Your task to perform on an android device: turn on data saver in the chrome app Image 0: 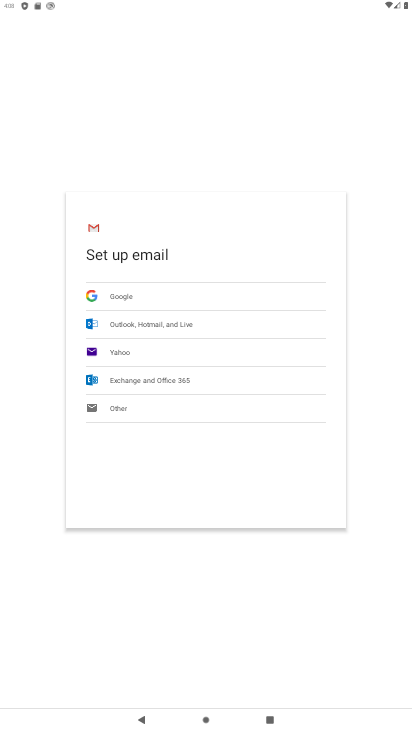
Step 0: press home button
Your task to perform on an android device: turn on data saver in the chrome app Image 1: 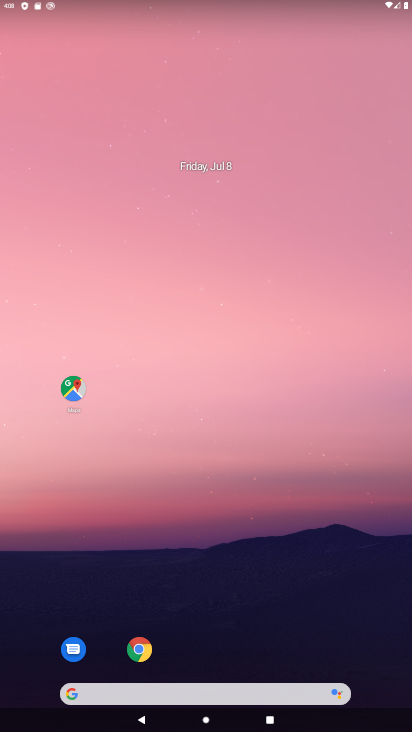
Step 1: drag from (219, 539) to (325, 140)
Your task to perform on an android device: turn on data saver in the chrome app Image 2: 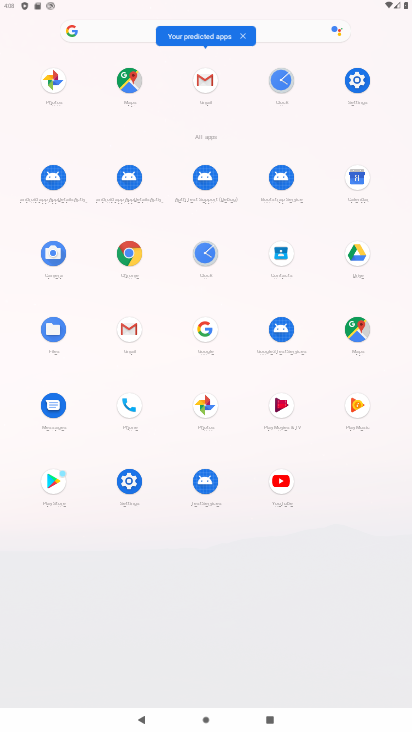
Step 2: click (139, 254)
Your task to perform on an android device: turn on data saver in the chrome app Image 3: 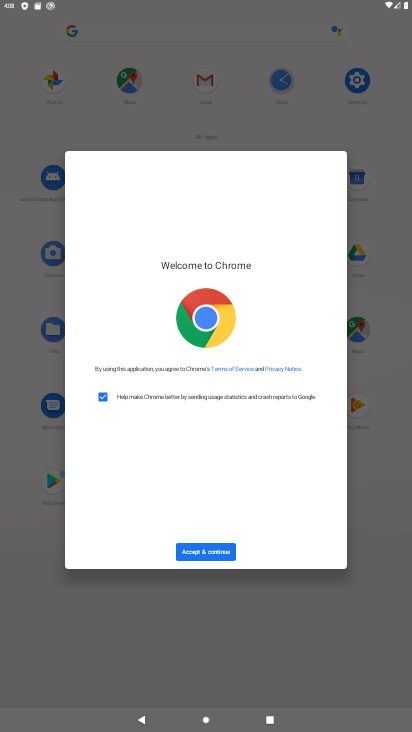
Step 3: click (225, 545)
Your task to perform on an android device: turn on data saver in the chrome app Image 4: 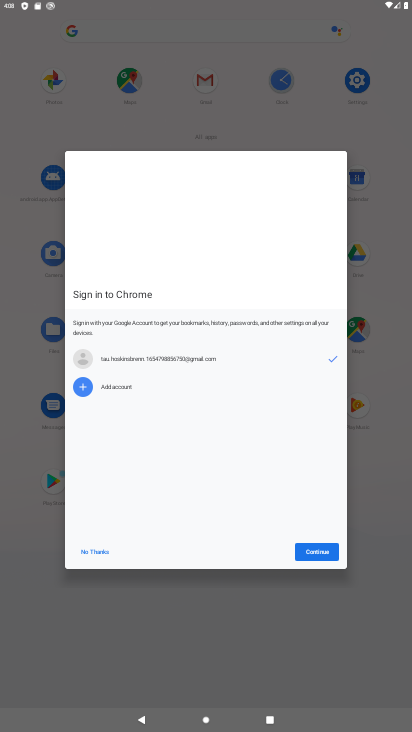
Step 4: click (319, 550)
Your task to perform on an android device: turn on data saver in the chrome app Image 5: 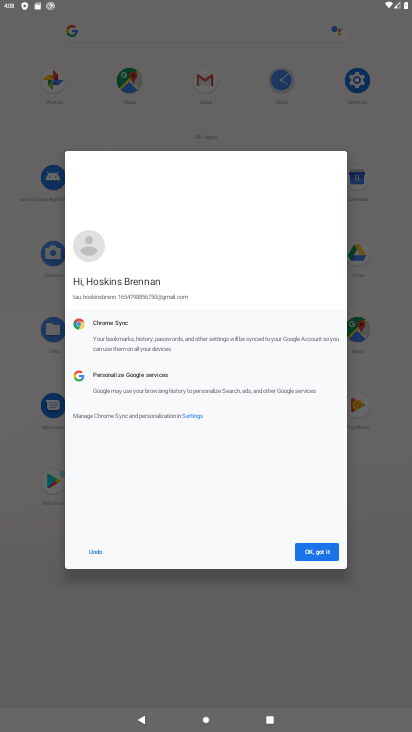
Step 5: click (324, 550)
Your task to perform on an android device: turn on data saver in the chrome app Image 6: 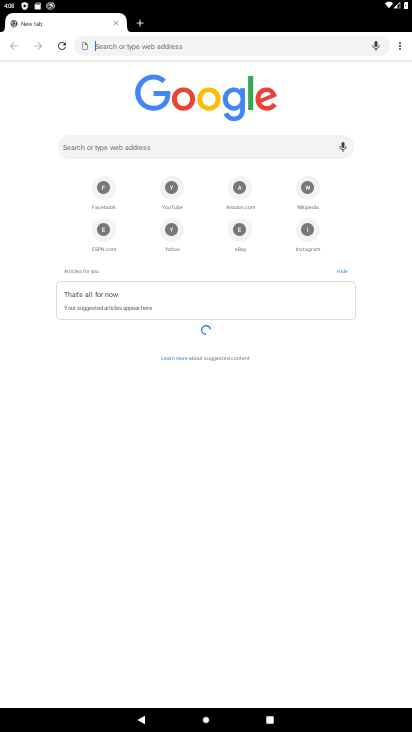
Step 6: drag from (394, 42) to (323, 203)
Your task to perform on an android device: turn on data saver in the chrome app Image 7: 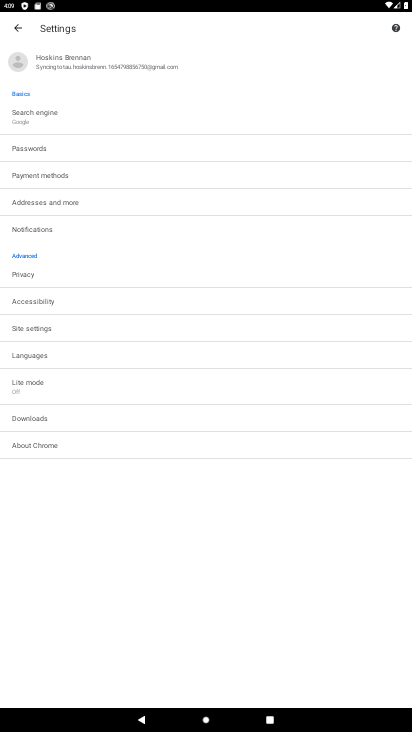
Step 7: click (65, 380)
Your task to perform on an android device: turn on data saver in the chrome app Image 8: 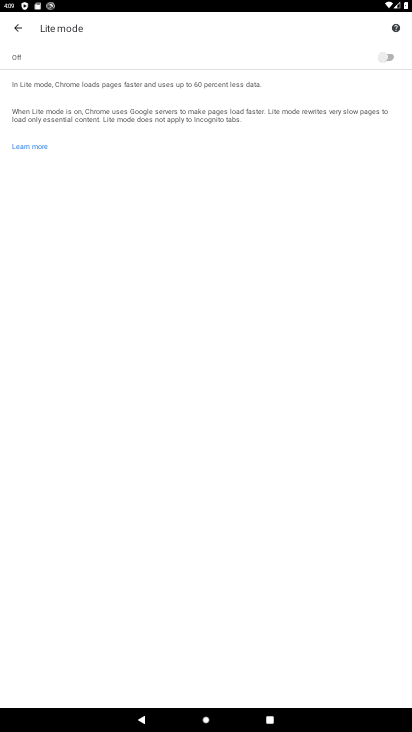
Step 8: click (399, 50)
Your task to perform on an android device: turn on data saver in the chrome app Image 9: 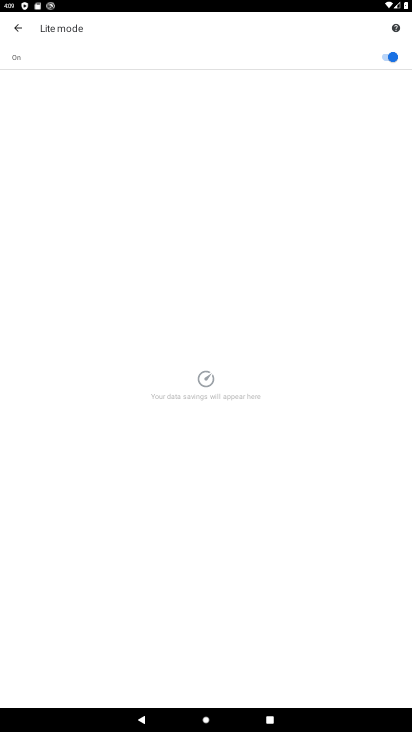
Step 9: task complete